Your task to perform on an android device: turn on showing notifications on the lock screen Image 0: 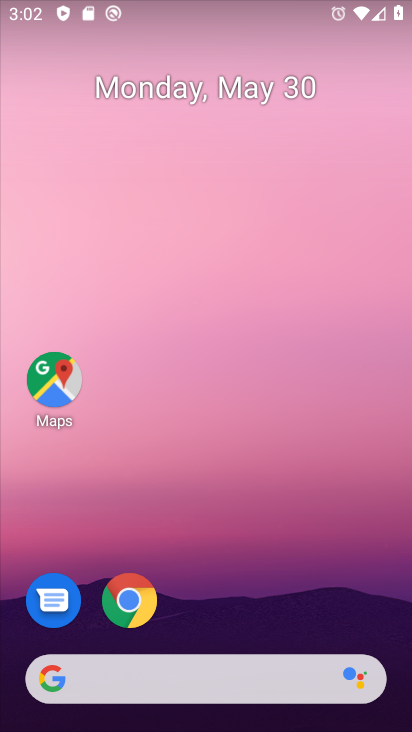
Step 0: drag from (223, 722) to (225, 2)
Your task to perform on an android device: turn on showing notifications on the lock screen Image 1: 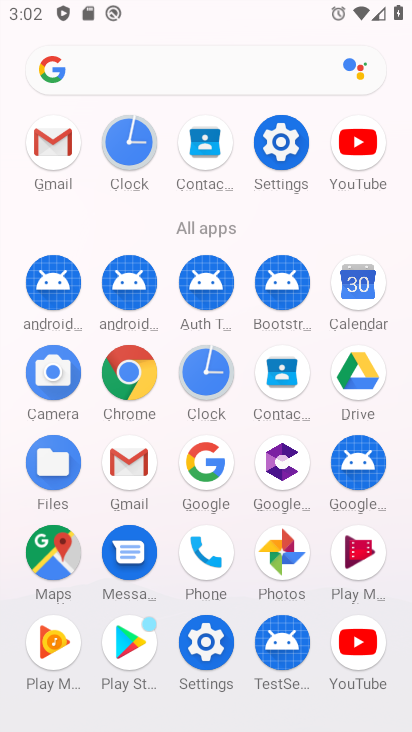
Step 1: click (279, 138)
Your task to perform on an android device: turn on showing notifications on the lock screen Image 2: 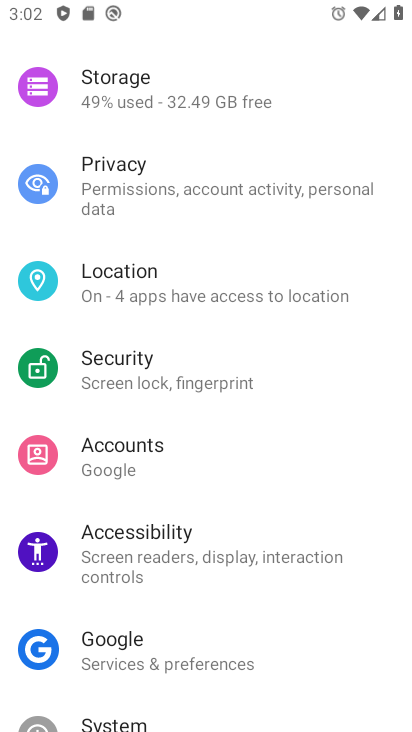
Step 2: drag from (210, 126) to (227, 493)
Your task to perform on an android device: turn on showing notifications on the lock screen Image 3: 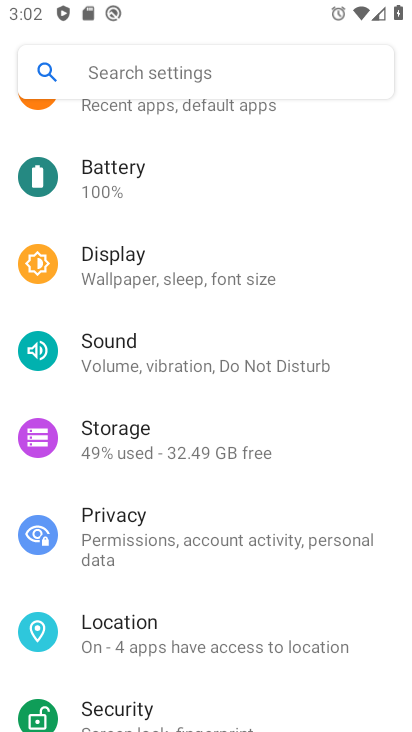
Step 3: drag from (184, 157) to (219, 567)
Your task to perform on an android device: turn on showing notifications on the lock screen Image 4: 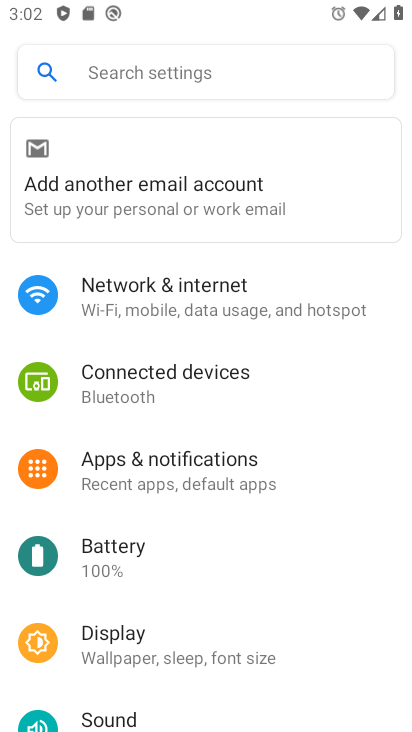
Step 4: click (186, 460)
Your task to perform on an android device: turn on showing notifications on the lock screen Image 5: 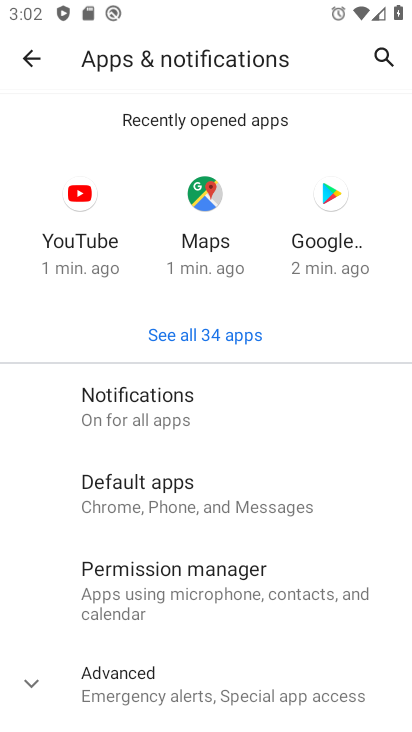
Step 5: click (144, 412)
Your task to perform on an android device: turn on showing notifications on the lock screen Image 6: 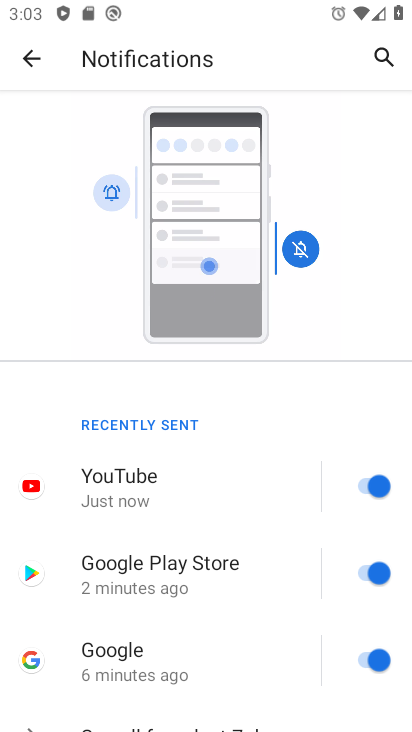
Step 6: task complete